Your task to perform on an android device: Show me popular games on the Play Store Image 0: 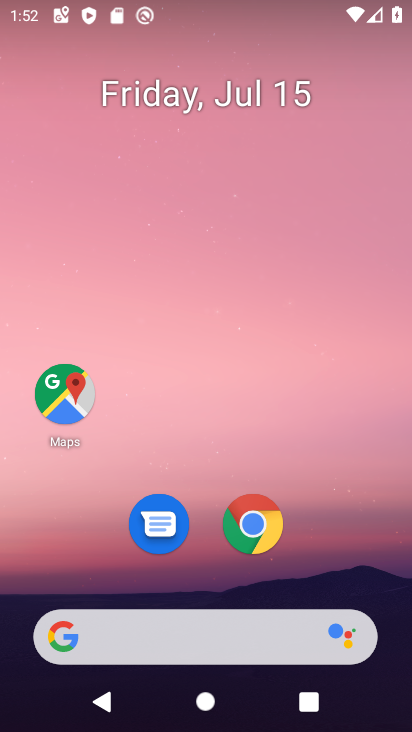
Step 0: drag from (226, 648) to (313, 200)
Your task to perform on an android device: Show me popular games on the Play Store Image 1: 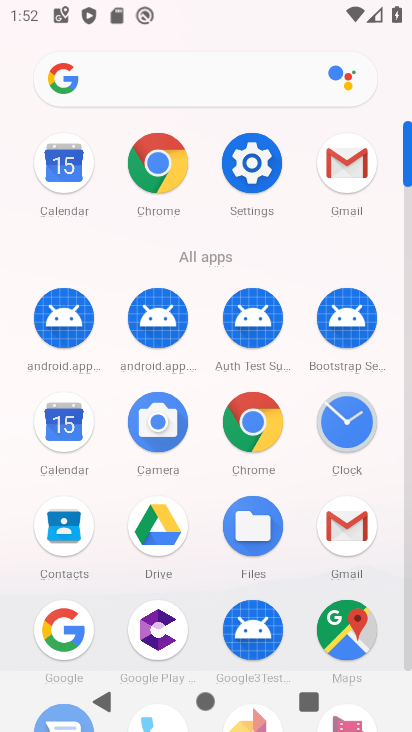
Step 1: drag from (210, 609) to (342, 116)
Your task to perform on an android device: Show me popular games on the Play Store Image 2: 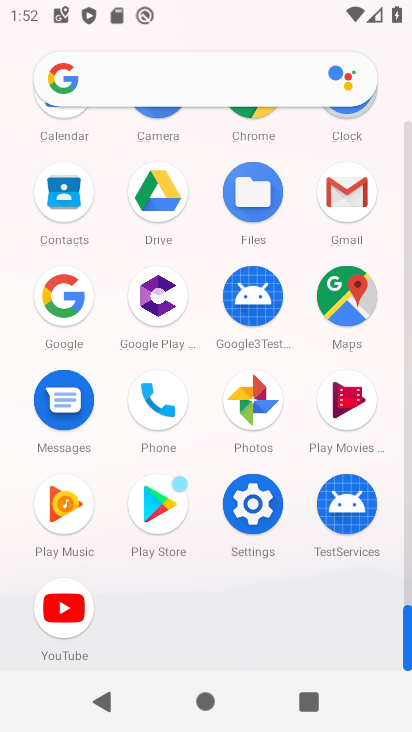
Step 2: click (161, 502)
Your task to perform on an android device: Show me popular games on the Play Store Image 3: 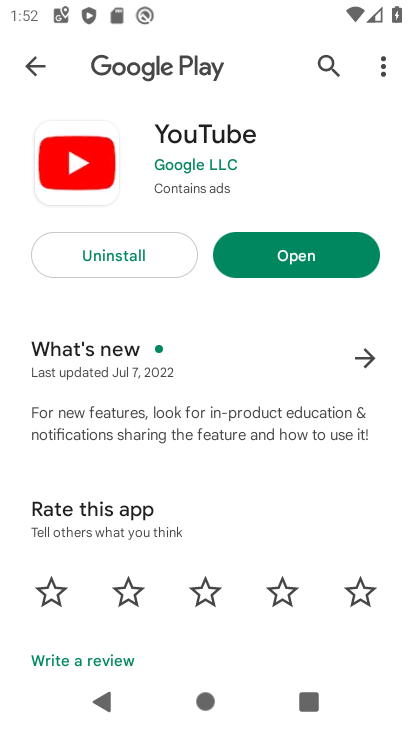
Step 3: click (40, 66)
Your task to perform on an android device: Show me popular games on the Play Store Image 4: 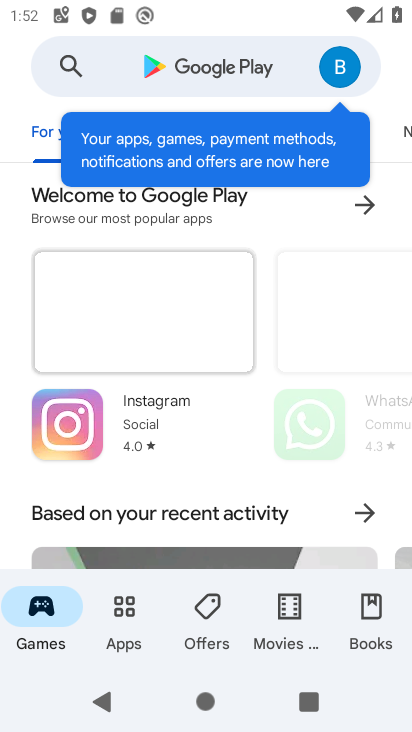
Step 4: drag from (252, 487) to (364, 78)
Your task to perform on an android device: Show me popular games on the Play Store Image 5: 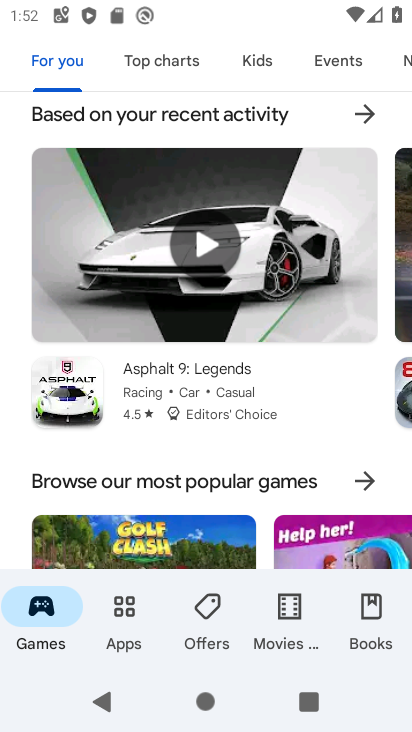
Step 5: click (362, 482)
Your task to perform on an android device: Show me popular games on the Play Store Image 6: 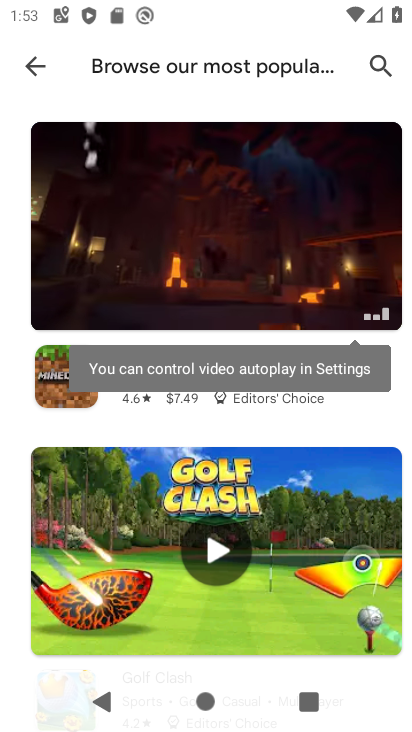
Step 6: task complete